Your task to perform on an android device: open wifi settings Image 0: 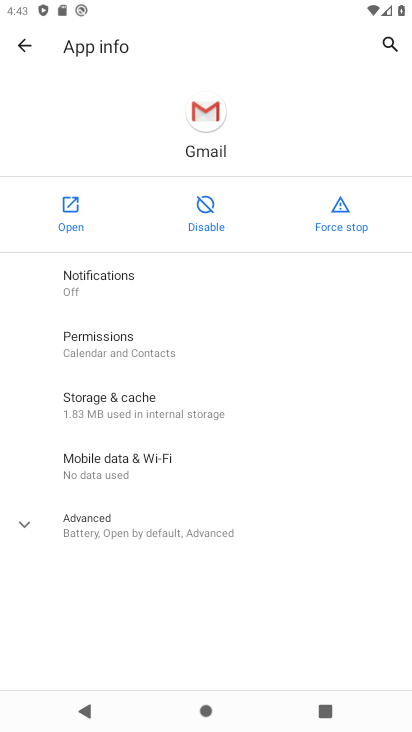
Step 0: press back button
Your task to perform on an android device: open wifi settings Image 1: 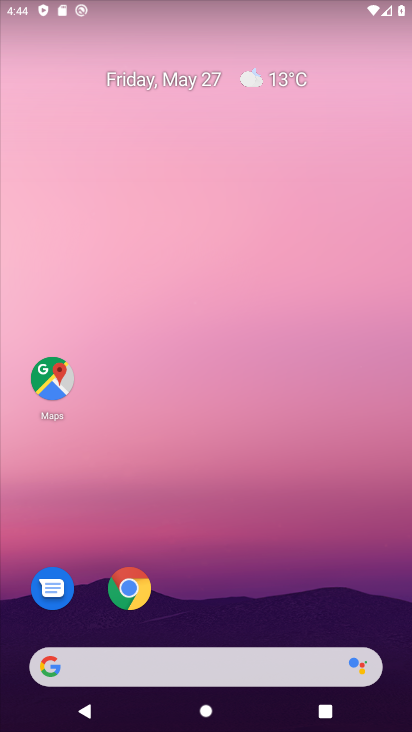
Step 1: drag from (68, 0) to (73, 410)
Your task to perform on an android device: open wifi settings Image 2: 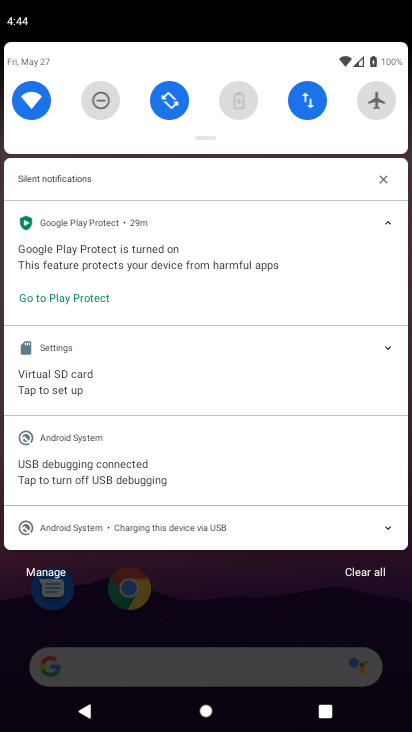
Step 2: click (32, 94)
Your task to perform on an android device: open wifi settings Image 3: 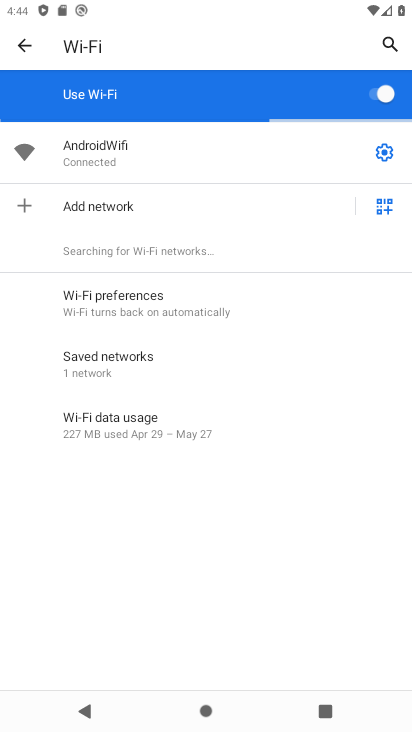
Step 3: task complete